Your task to perform on an android device: Open the Play Movies app and select the watchlist tab. Image 0: 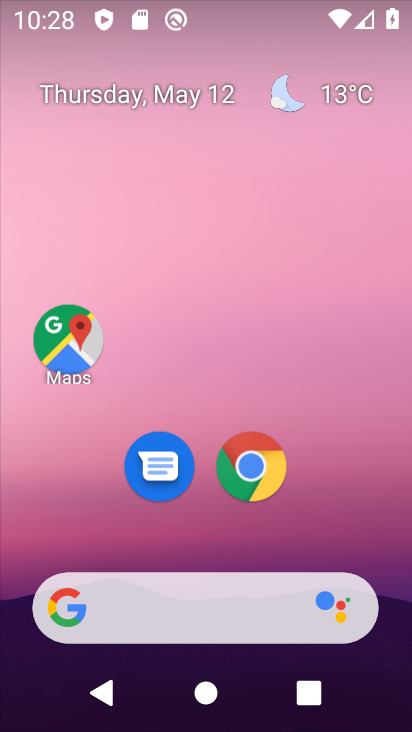
Step 0: drag from (188, 422) to (195, 54)
Your task to perform on an android device: Open the Play Movies app and select the watchlist tab. Image 1: 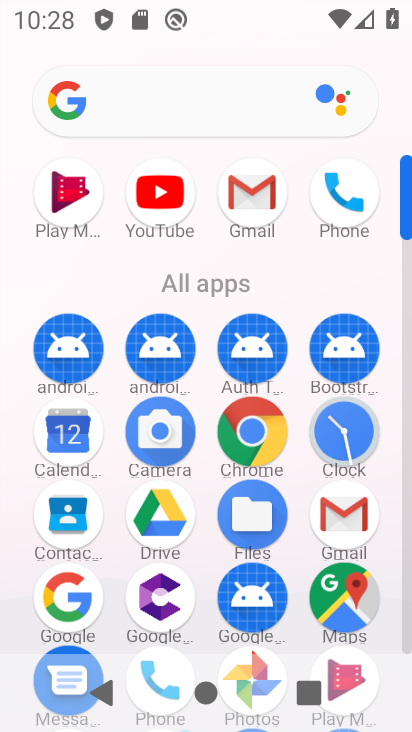
Step 1: drag from (289, 555) to (284, 187)
Your task to perform on an android device: Open the Play Movies app and select the watchlist tab. Image 2: 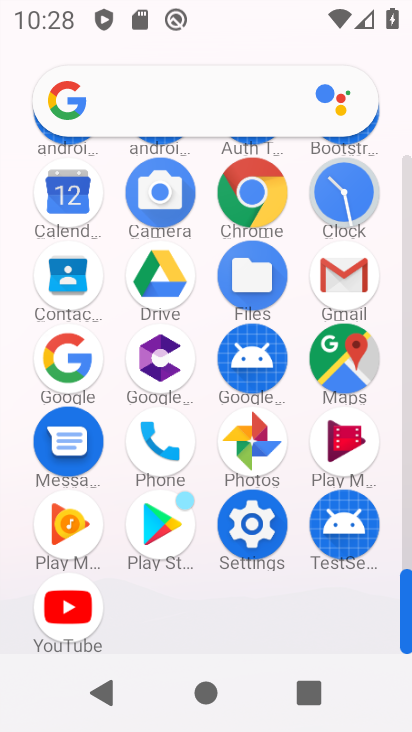
Step 2: click (355, 446)
Your task to perform on an android device: Open the Play Movies app and select the watchlist tab. Image 3: 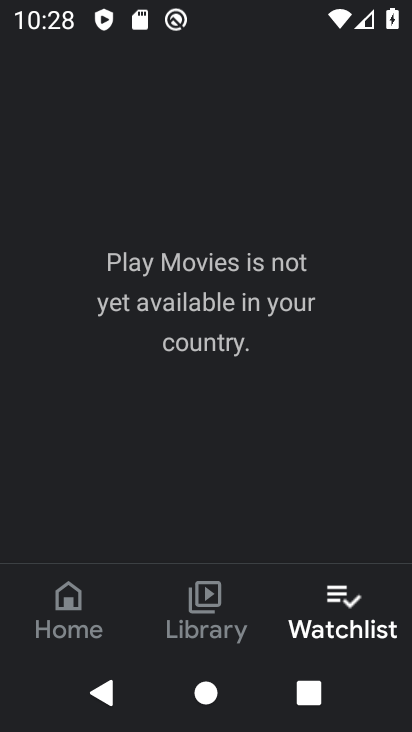
Step 3: task complete